Your task to perform on an android device: Empty the shopping cart on costco.com. Search for dell alienware on costco.com, select the first entry, and add it to the cart. Image 0: 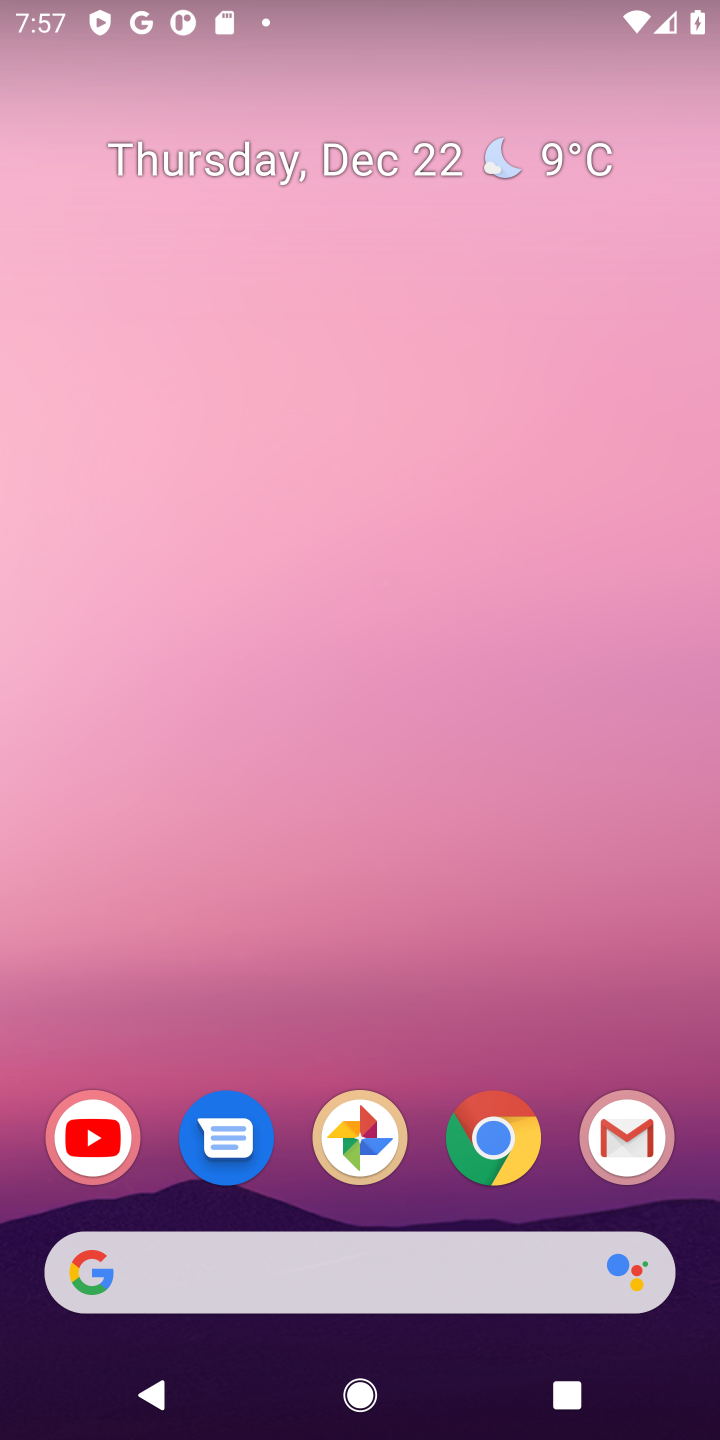
Step 0: click (499, 1144)
Your task to perform on an android device: Empty the shopping cart on costco.com. Search for dell alienware on costco.com, select the first entry, and add it to the cart. Image 1: 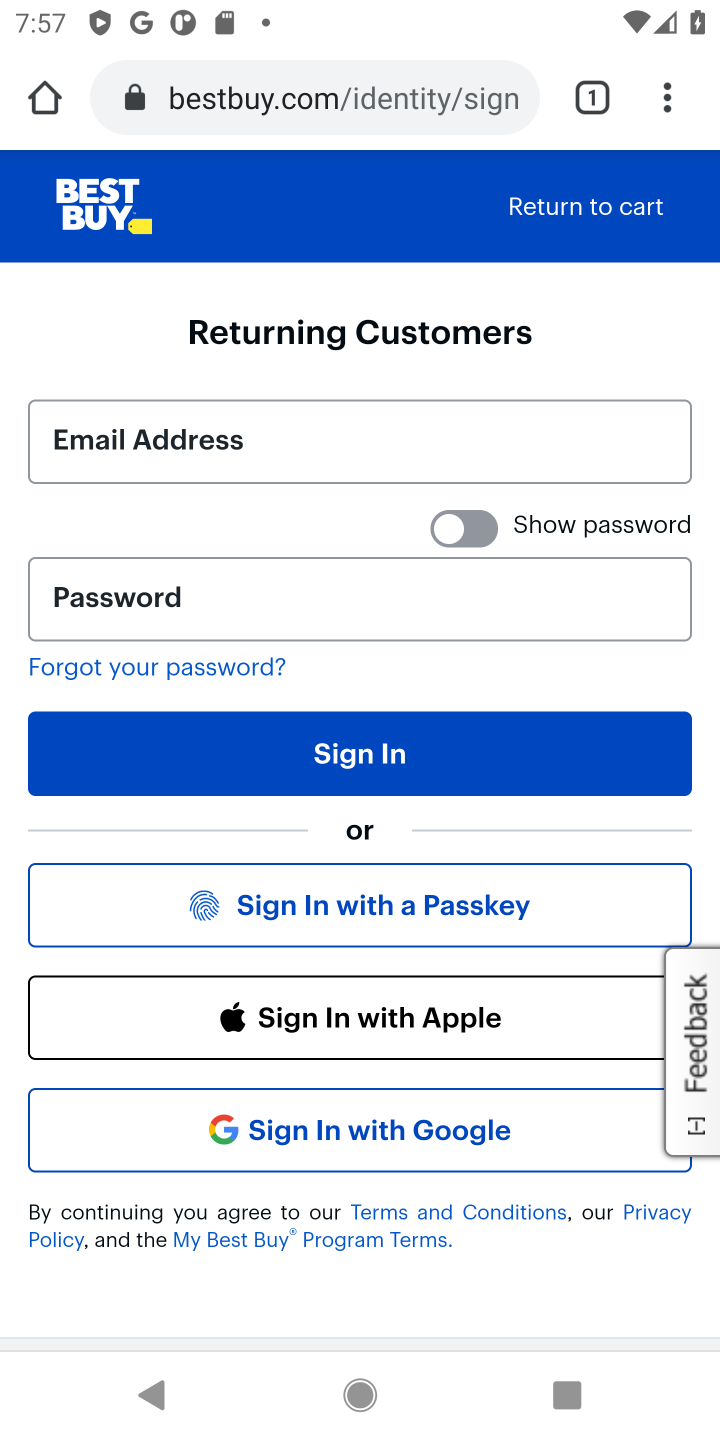
Step 1: click (205, 117)
Your task to perform on an android device: Empty the shopping cart on costco.com. Search for dell alienware on costco.com, select the first entry, and add it to the cart. Image 2: 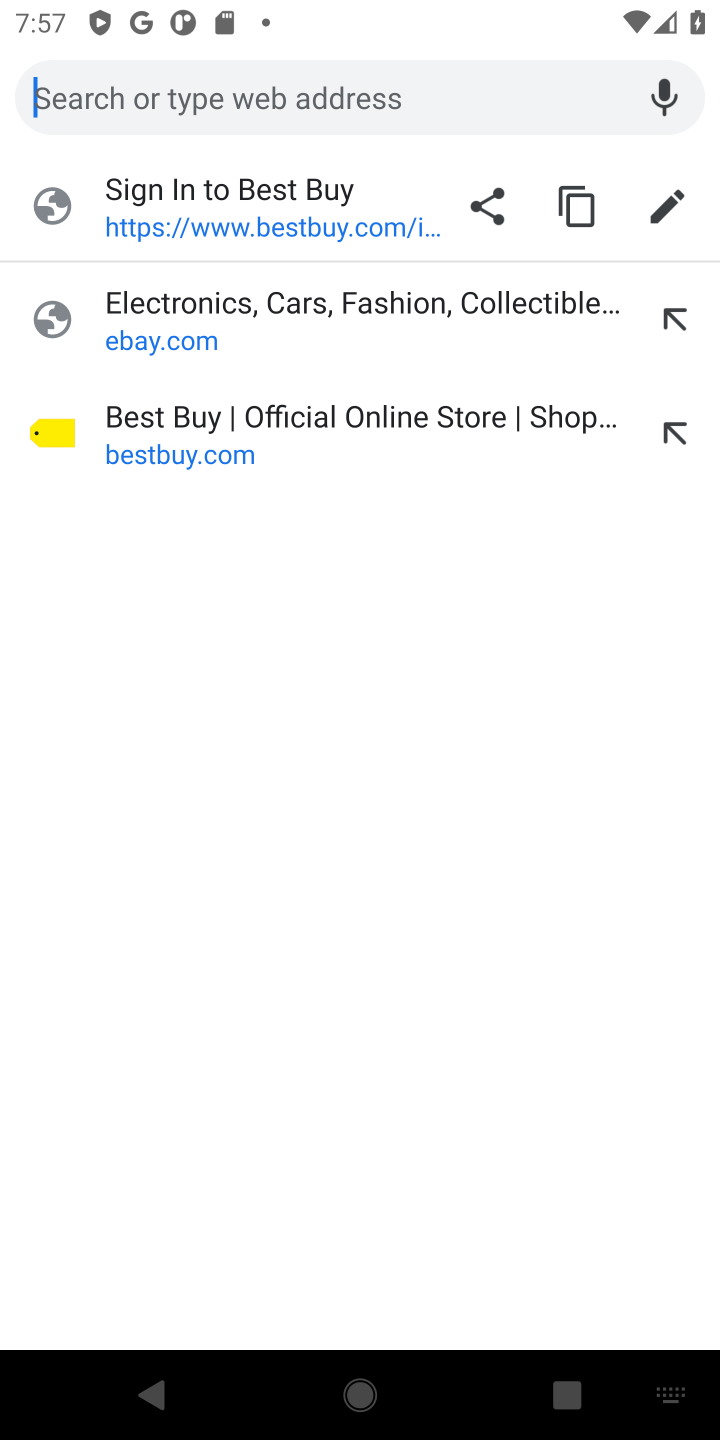
Step 2: press enter
Your task to perform on an android device: Empty the shopping cart on costco.com. Search for dell alienware on costco.com, select the first entry, and add it to the cart. Image 3: 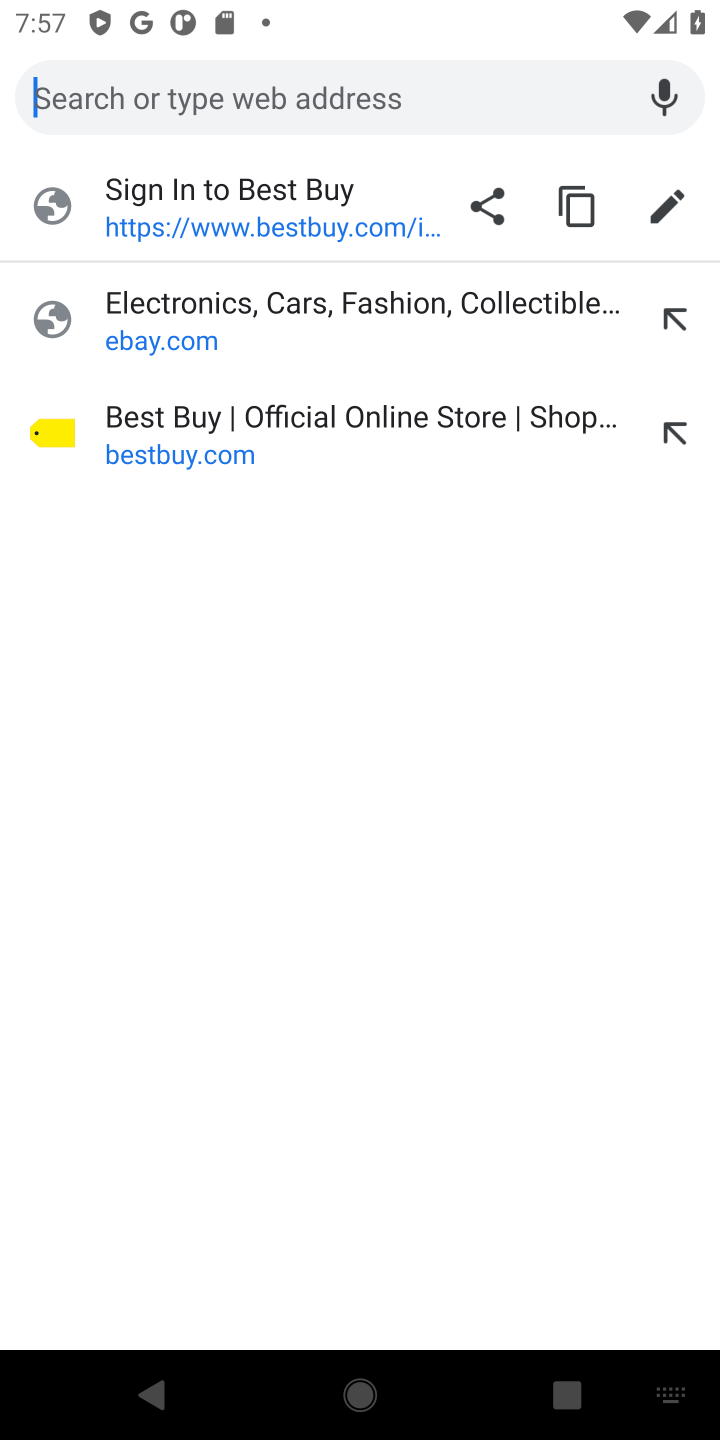
Step 3: type "costco.com"
Your task to perform on an android device: Empty the shopping cart on costco.com. Search for dell alienware on costco.com, select the first entry, and add it to the cart. Image 4: 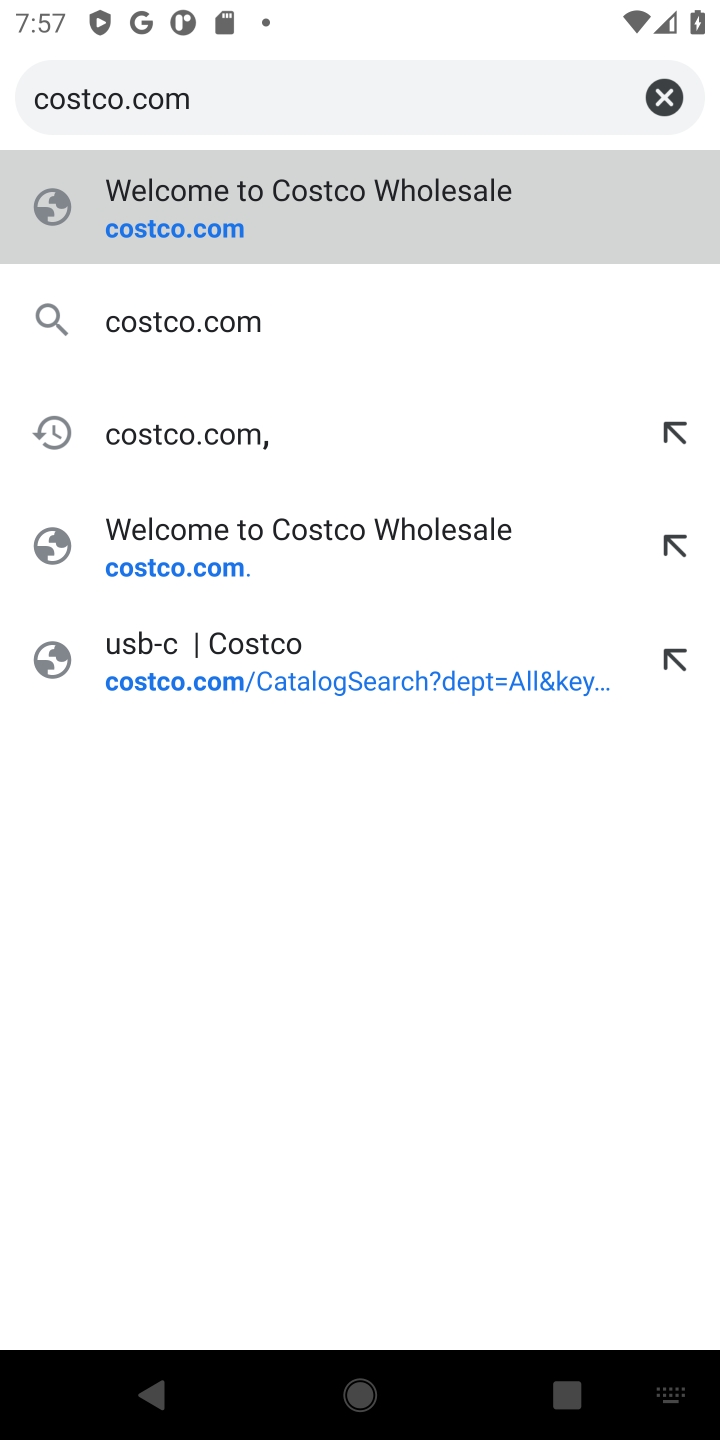
Step 4: click (213, 217)
Your task to perform on an android device: Empty the shopping cart on costco.com. Search for dell alienware on costco.com, select the first entry, and add it to the cart. Image 5: 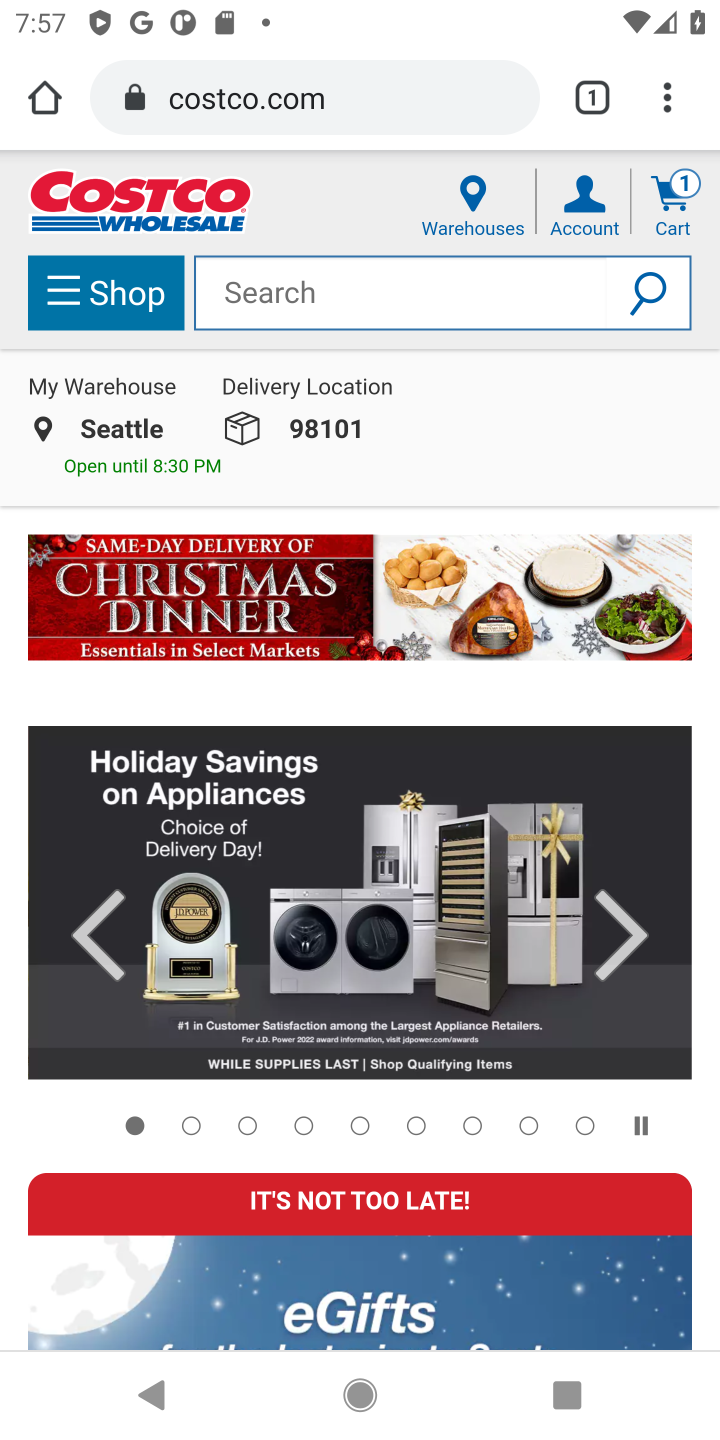
Step 5: click (398, 292)
Your task to perform on an android device: Empty the shopping cart on costco.com. Search for dell alienware on costco.com, select the first entry, and add it to the cart. Image 6: 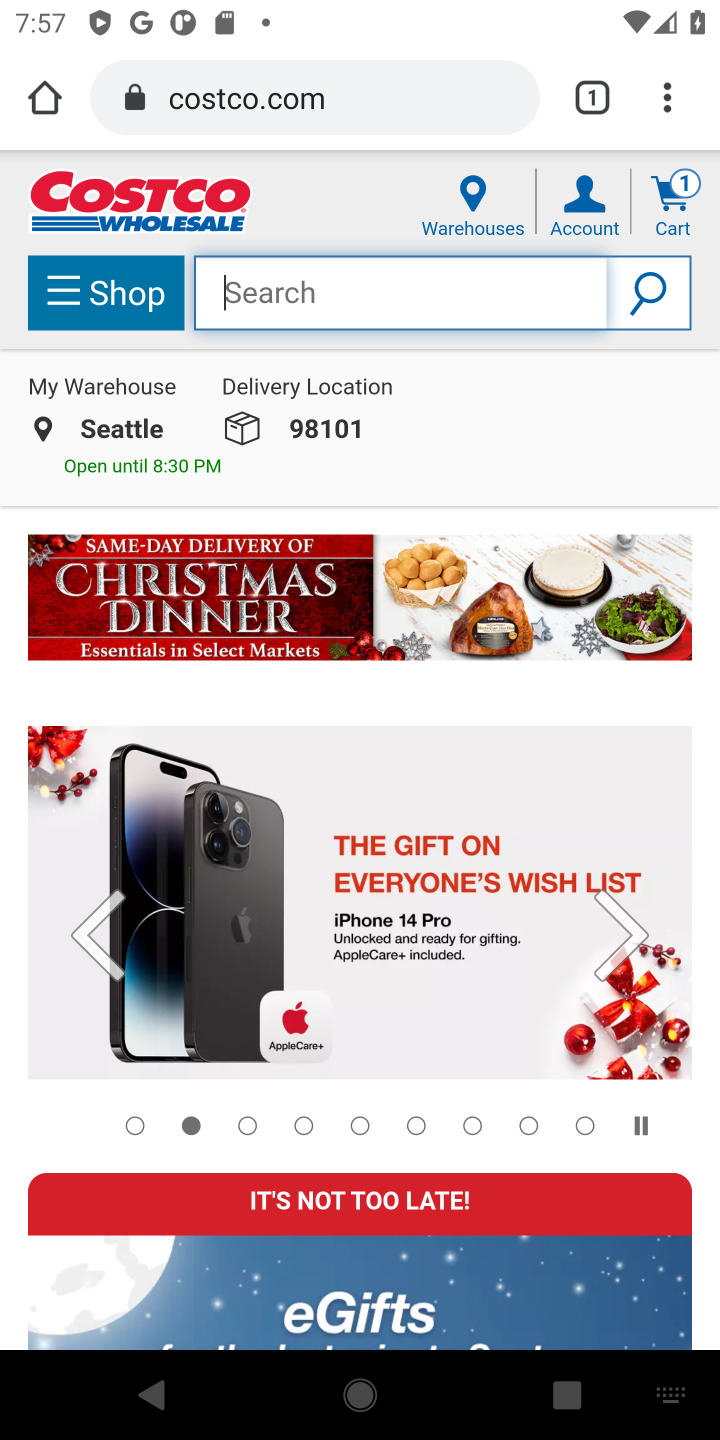
Step 6: type "dell alienware"
Your task to perform on an android device: Empty the shopping cart on costco.com. Search for dell alienware on costco.com, select the first entry, and add it to the cart. Image 7: 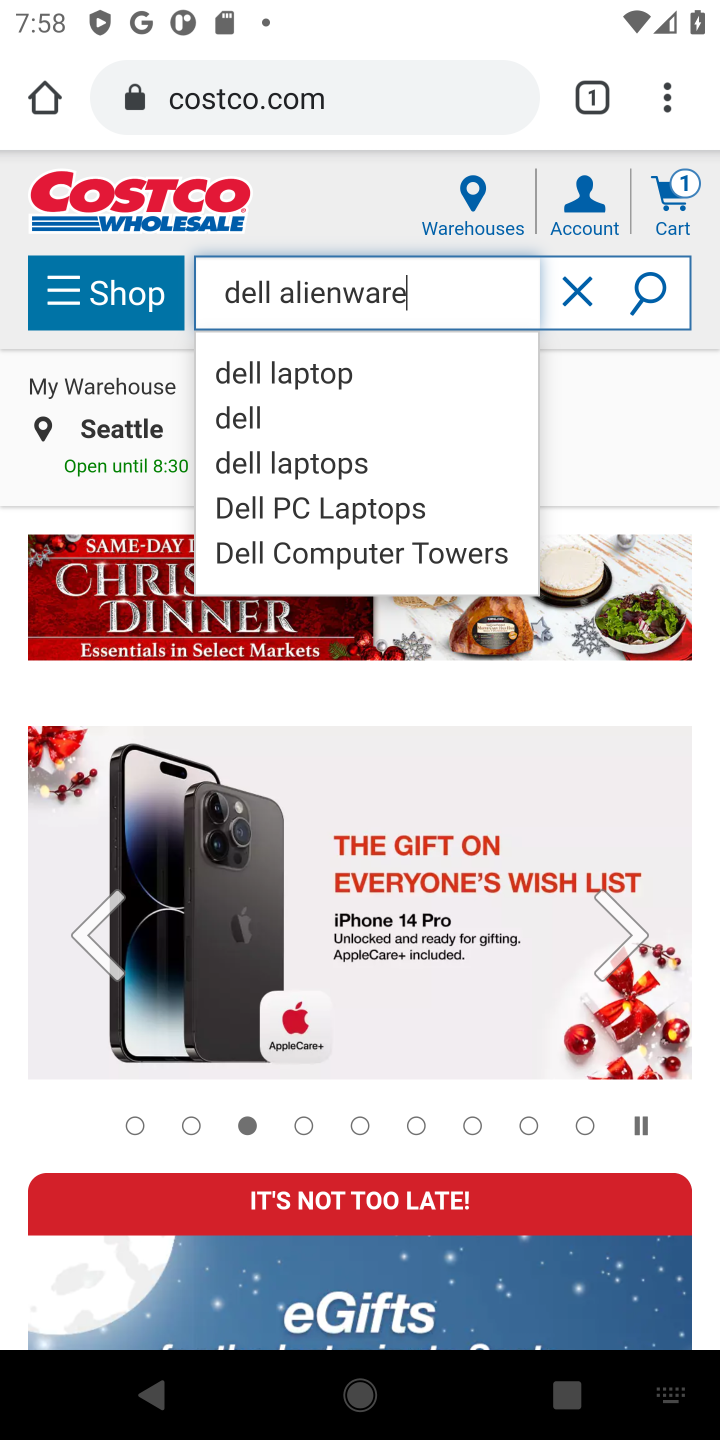
Step 7: press enter
Your task to perform on an android device: Empty the shopping cart on costco.com. Search for dell alienware on costco.com, select the first entry, and add it to the cart. Image 8: 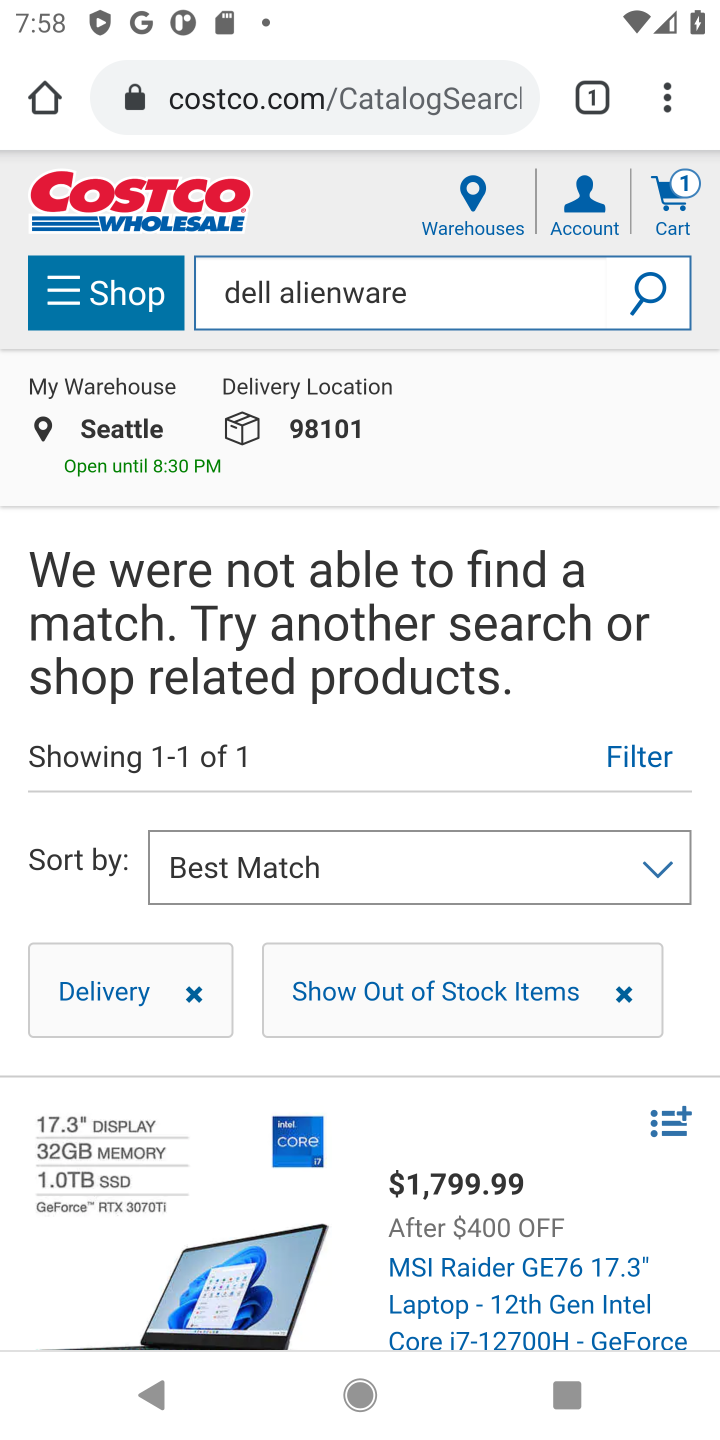
Step 8: task complete